Your task to perform on an android device: turn on priority inbox in the gmail app Image 0: 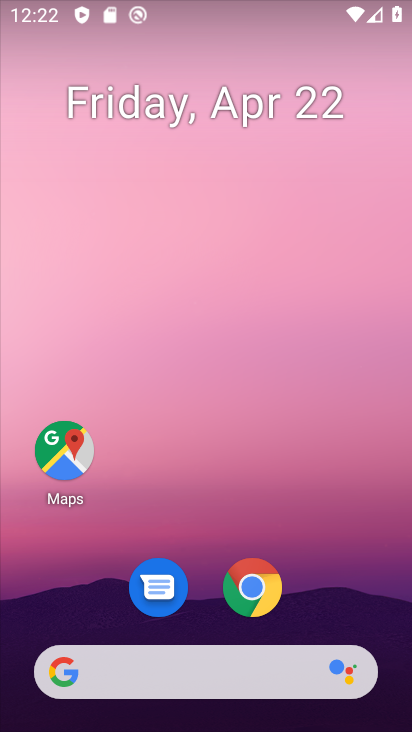
Step 0: drag from (153, 660) to (227, 156)
Your task to perform on an android device: turn on priority inbox in the gmail app Image 1: 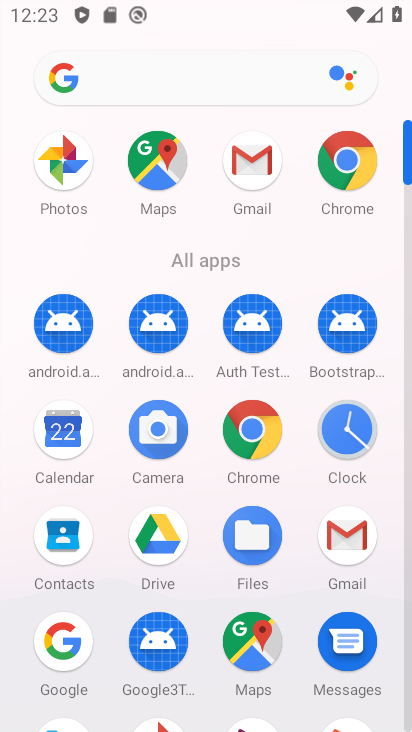
Step 1: click (252, 175)
Your task to perform on an android device: turn on priority inbox in the gmail app Image 2: 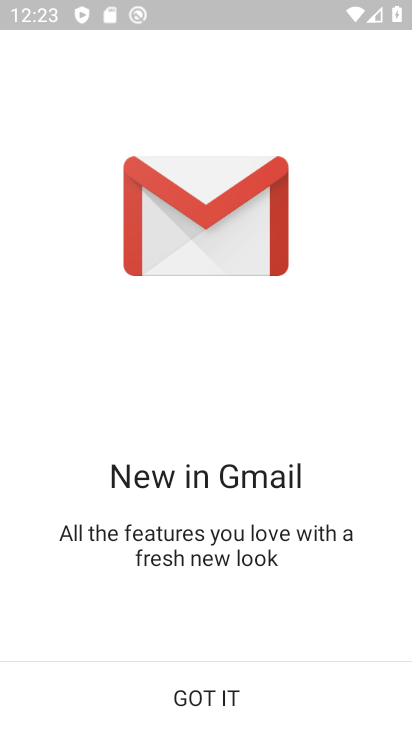
Step 2: click (200, 695)
Your task to perform on an android device: turn on priority inbox in the gmail app Image 3: 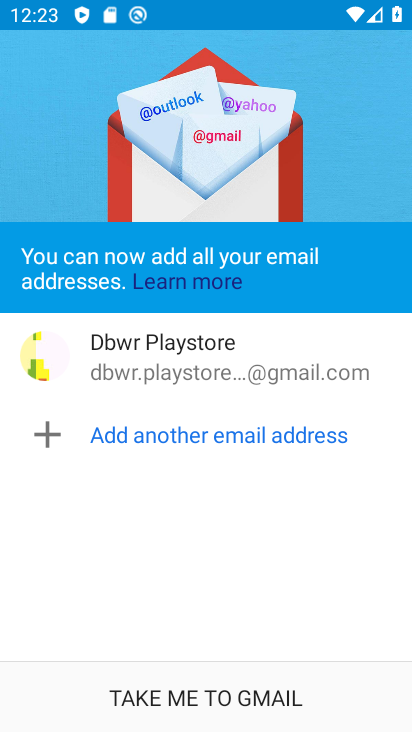
Step 3: click (200, 695)
Your task to perform on an android device: turn on priority inbox in the gmail app Image 4: 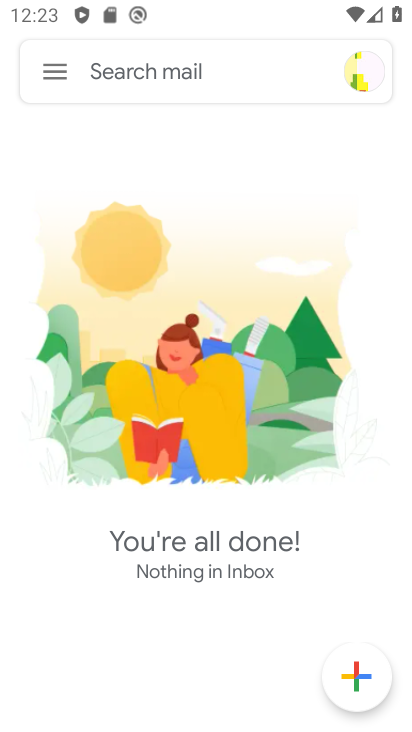
Step 4: click (57, 70)
Your task to perform on an android device: turn on priority inbox in the gmail app Image 5: 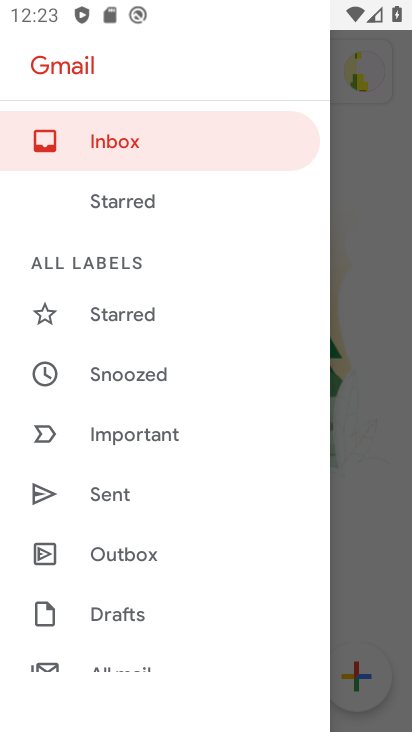
Step 5: drag from (147, 625) to (201, 185)
Your task to perform on an android device: turn on priority inbox in the gmail app Image 6: 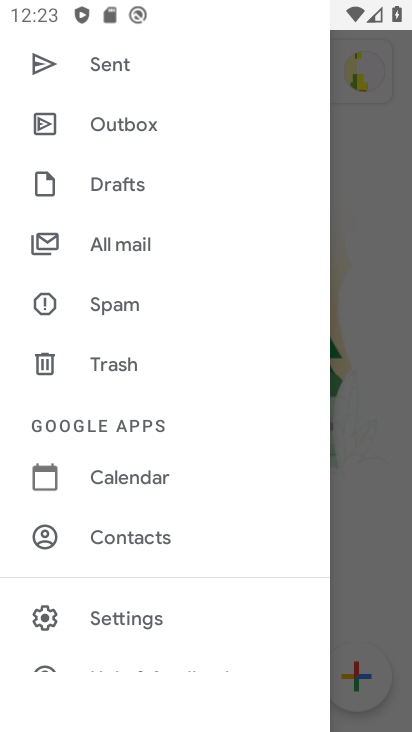
Step 6: click (134, 621)
Your task to perform on an android device: turn on priority inbox in the gmail app Image 7: 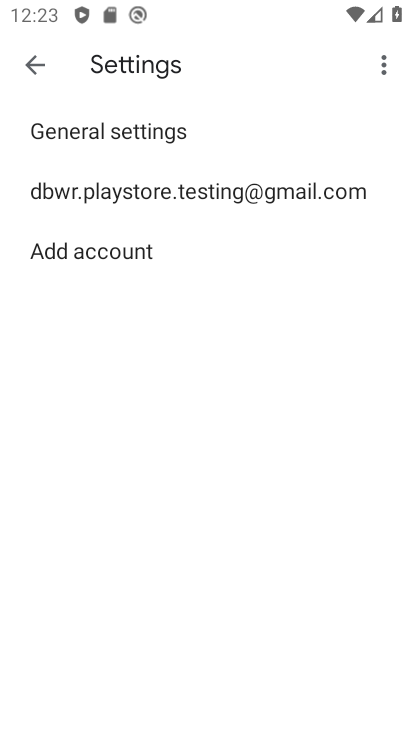
Step 7: click (237, 179)
Your task to perform on an android device: turn on priority inbox in the gmail app Image 8: 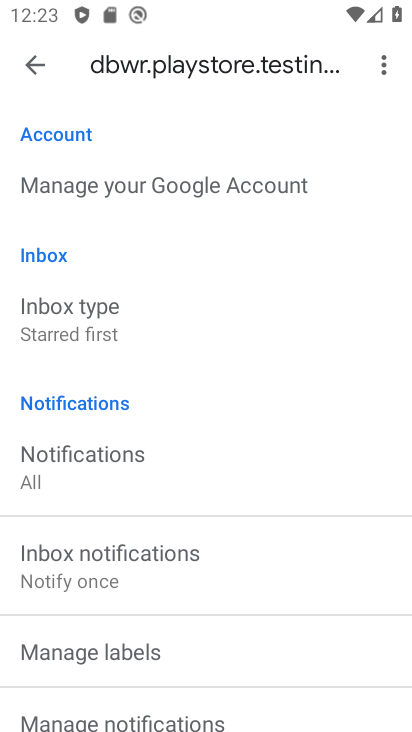
Step 8: click (98, 326)
Your task to perform on an android device: turn on priority inbox in the gmail app Image 9: 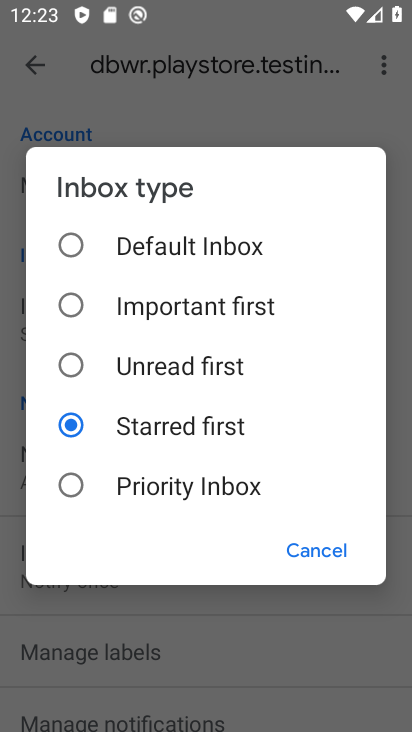
Step 9: click (71, 488)
Your task to perform on an android device: turn on priority inbox in the gmail app Image 10: 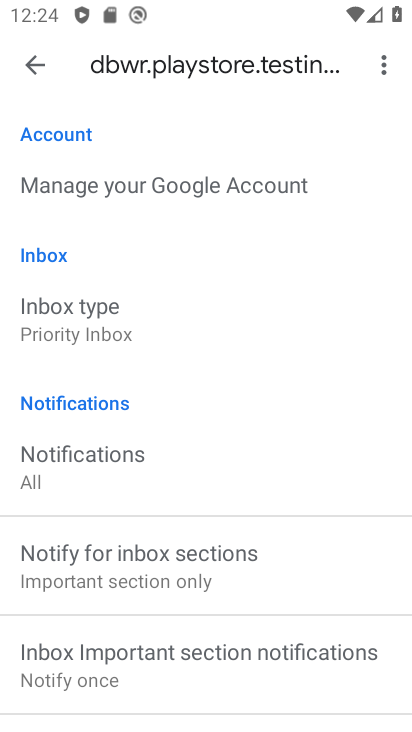
Step 10: task complete